Your task to perform on an android device: Open sound settings Image 0: 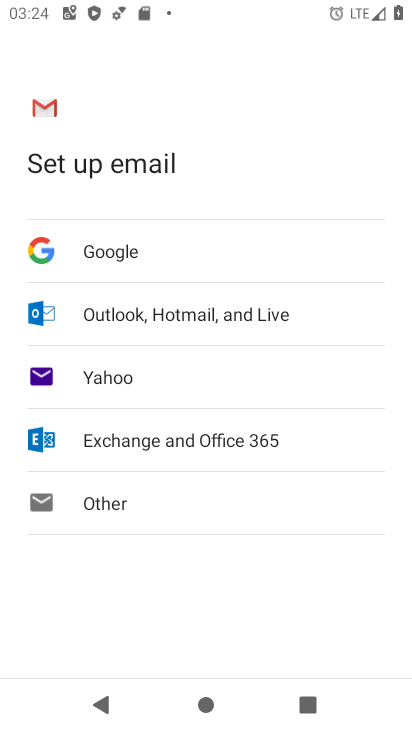
Step 0: press home button
Your task to perform on an android device: Open sound settings Image 1: 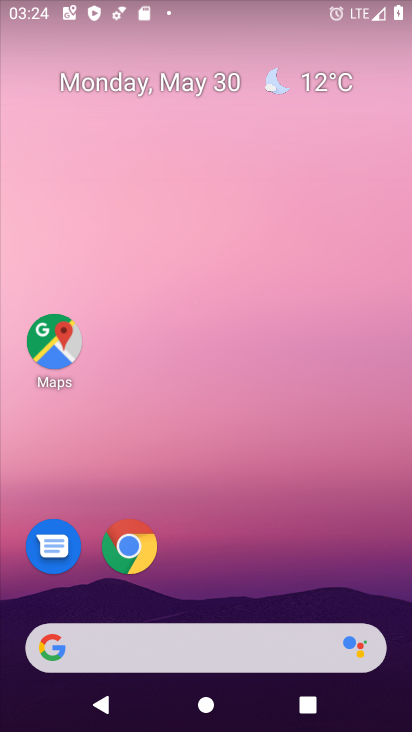
Step 1: drag from (201, 607) to (241, 53)
Your task to perform on an android device: Open sound settings Image 2: 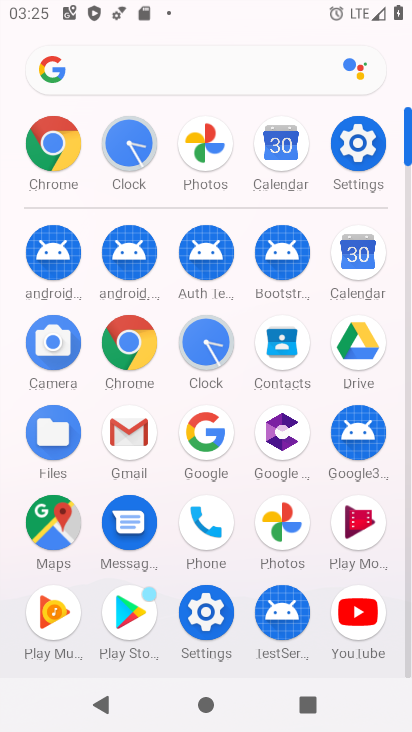
Step 2: click (208, 606)
Your task to perform on an android device: Open sound settings Image 3: 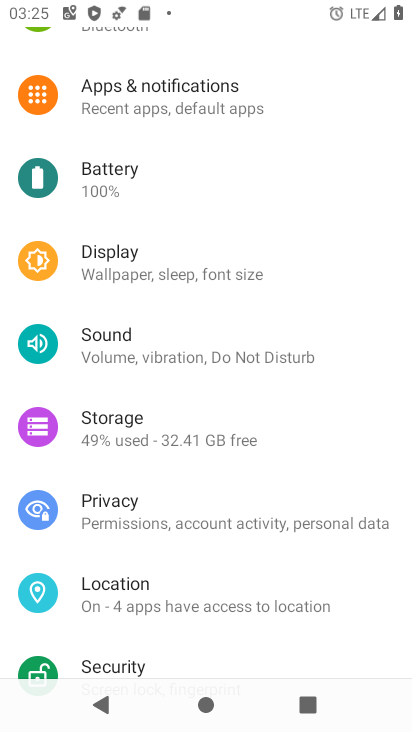
Step 3: click (149, 339)
Your task to perform on an android device: Open sound settings Image 4: 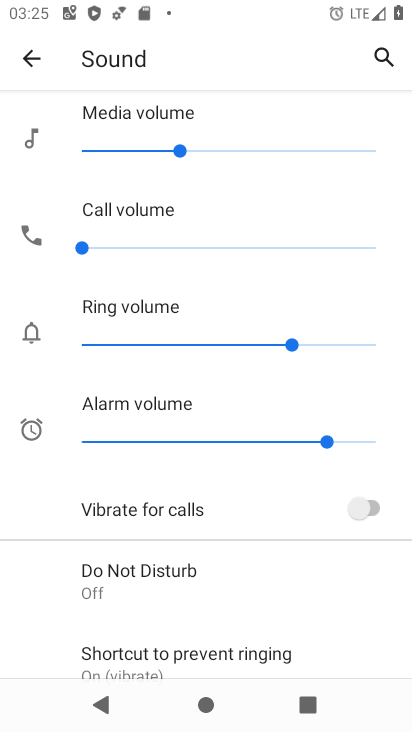
Step 4: task complete